Your task to perform on an android device: toggle location history Image 0: 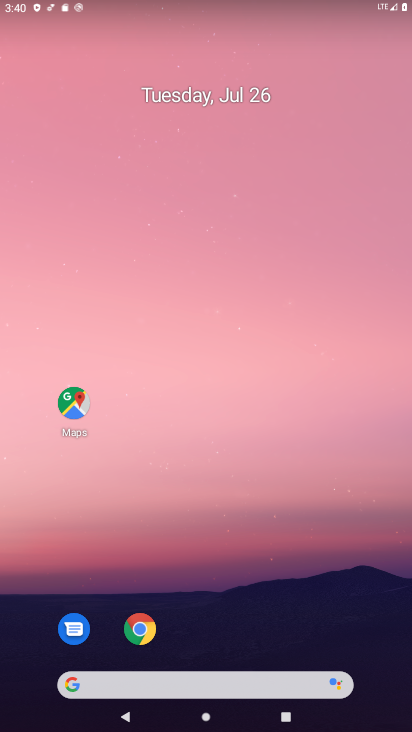
Step 0: drag from (222, 723) to (199, 128)
Your task to perform on an android device: toggle location history Image 1: 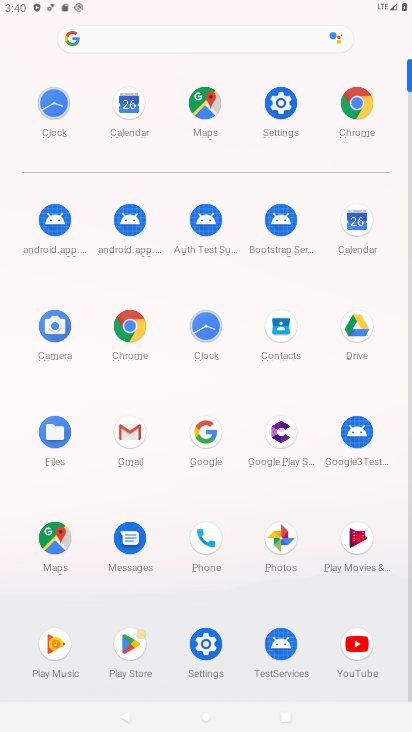
Step 1: click (281, 106)
Your task to perform on an android device: toggle location history Image 2: 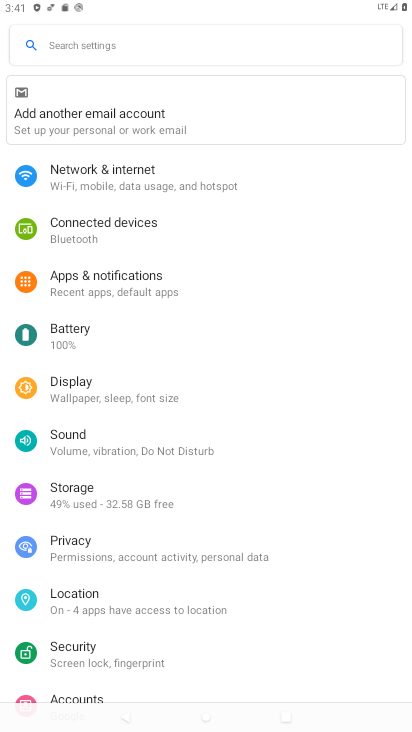
Step 2: click (78, 601)
Your task to perform on an android device: toggle location history Image 3: 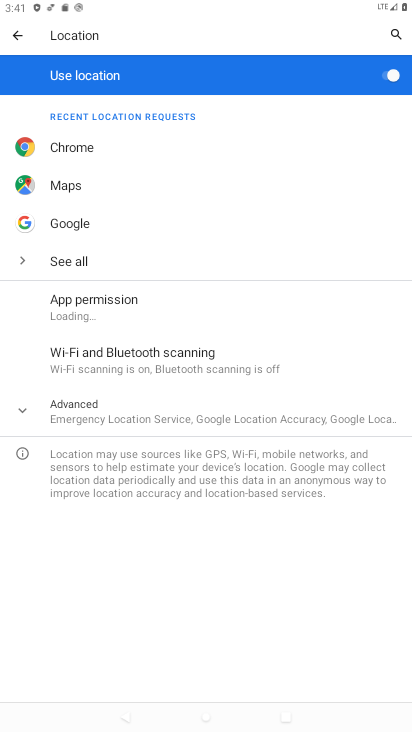
Step 3: click (117, 416)
Your task to perform on an android device: toggle location history Image 4: 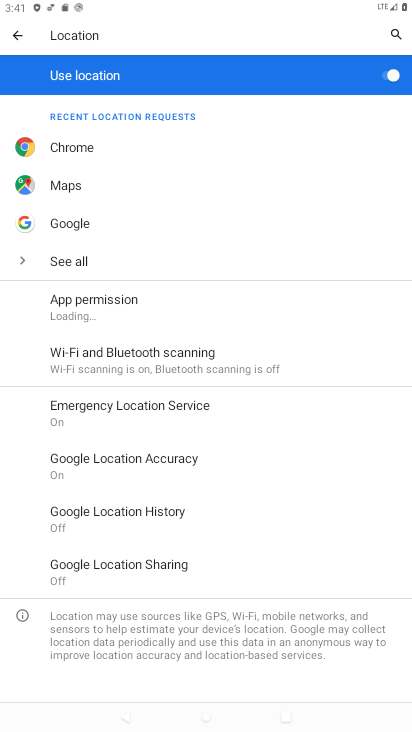
Step 4: click (144, 454)
Your task to perform on an android device: toggle location history Image 5: 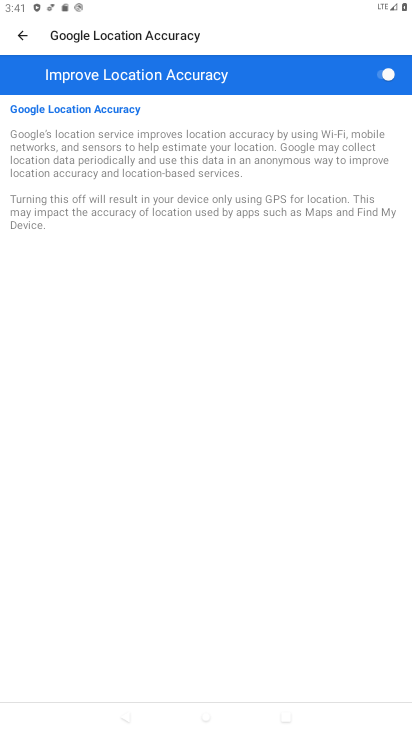
Step 5: click (387, 68)
Your task to perform on an android device: toggle location history Image 6: 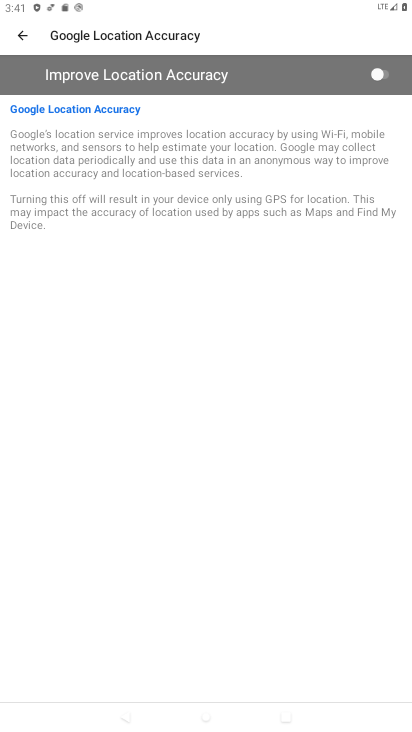
Step 6: task complete